Your task to perform on an android device: toggle wifi Image 0: 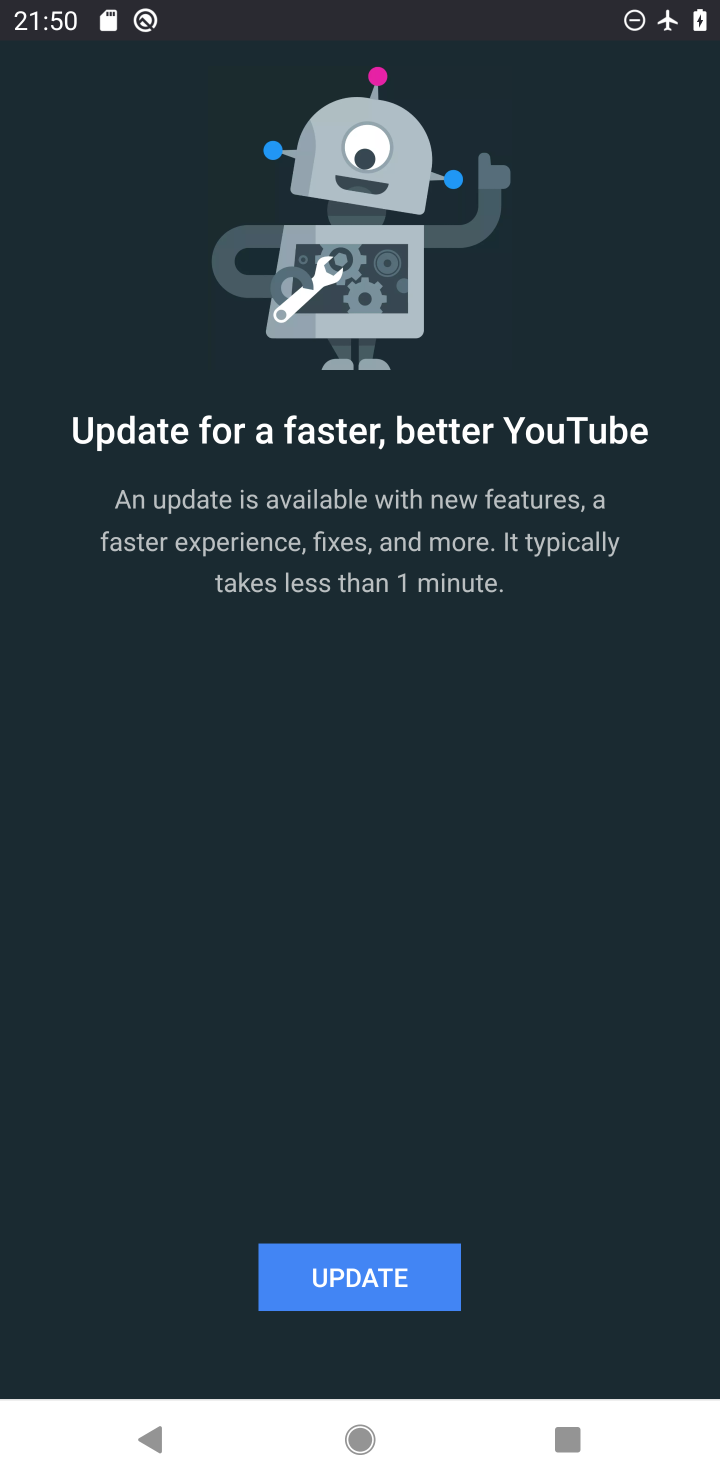
Step 0: press home button
Your task to perform on an android device: toggle wifi Image 1: 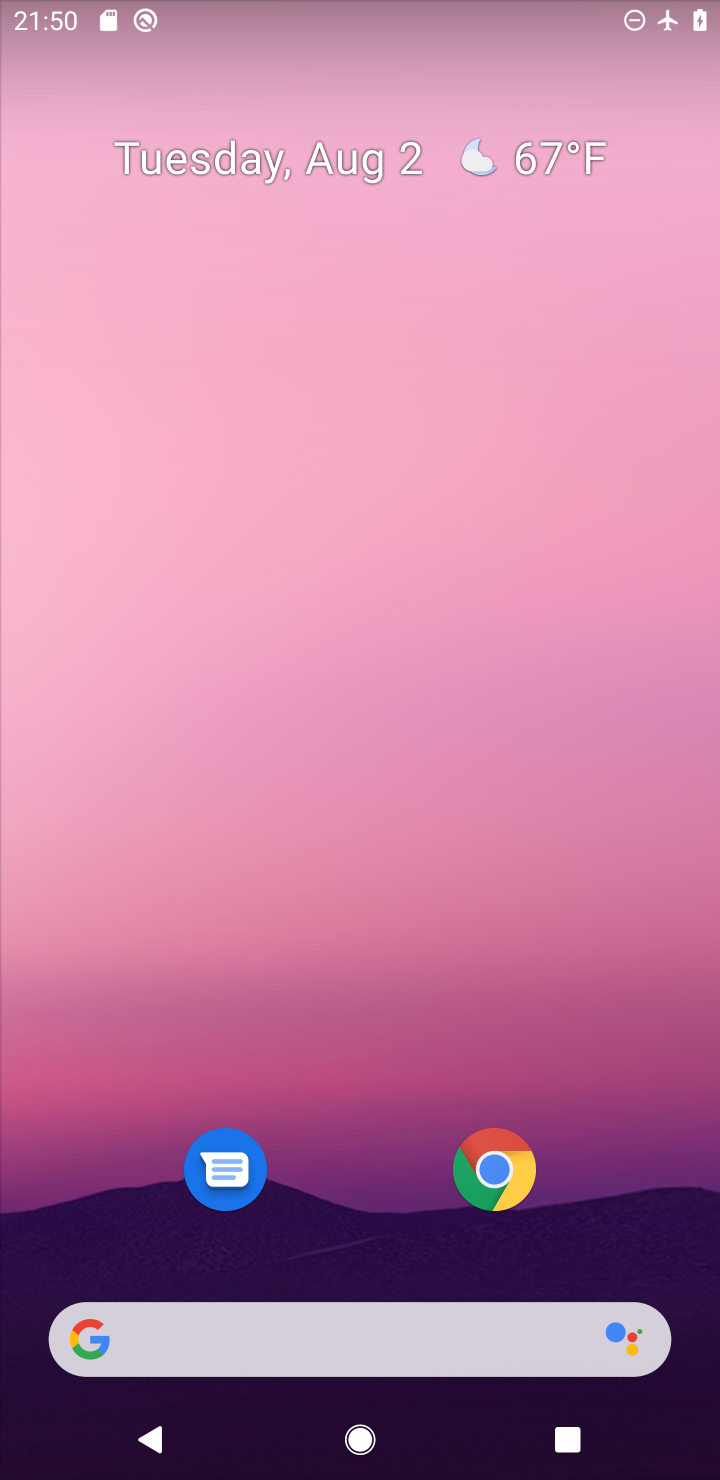
Step 1: drag from (342, 1094) to (361, 77)
Your task to perform on an android device: toggle wifi Image 2: 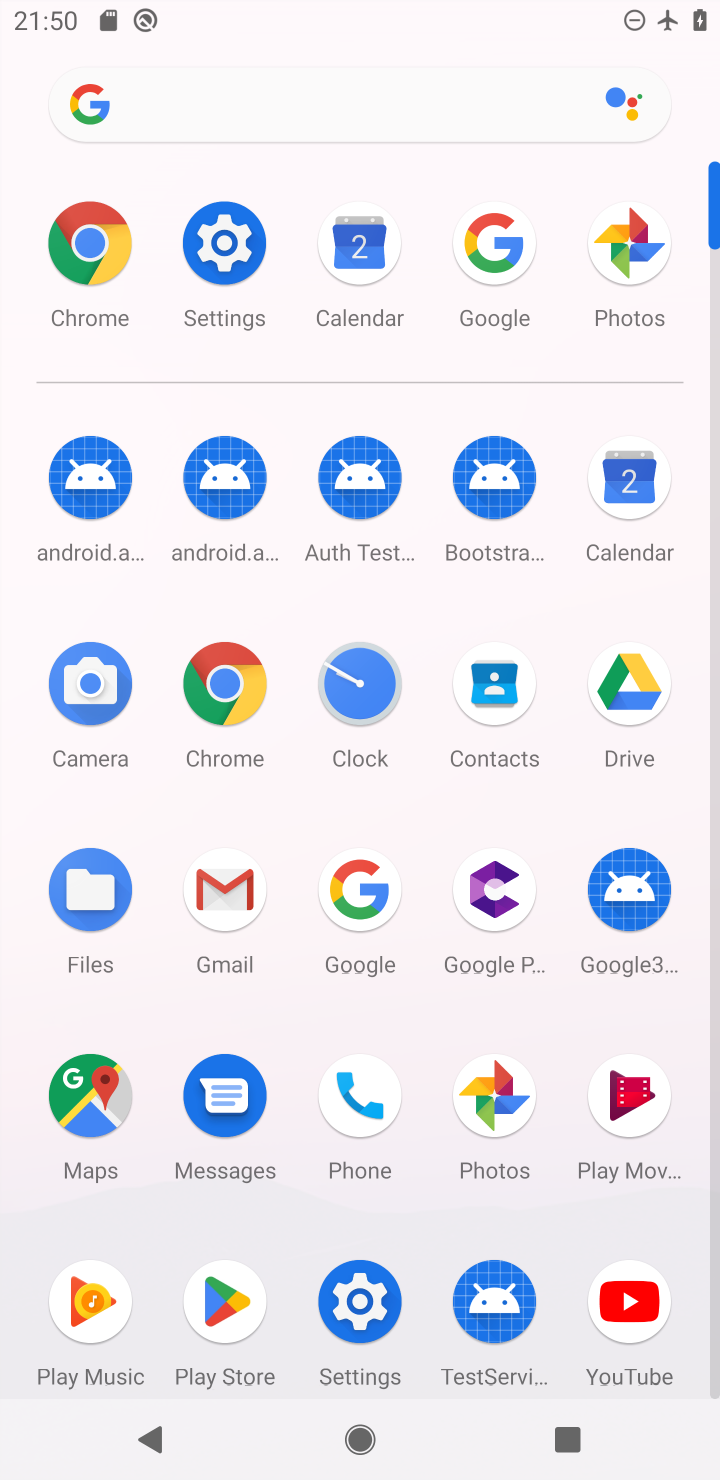
Step 2: click (228, 241)
Your task to perform on an android device: toggle wifi Image 3: 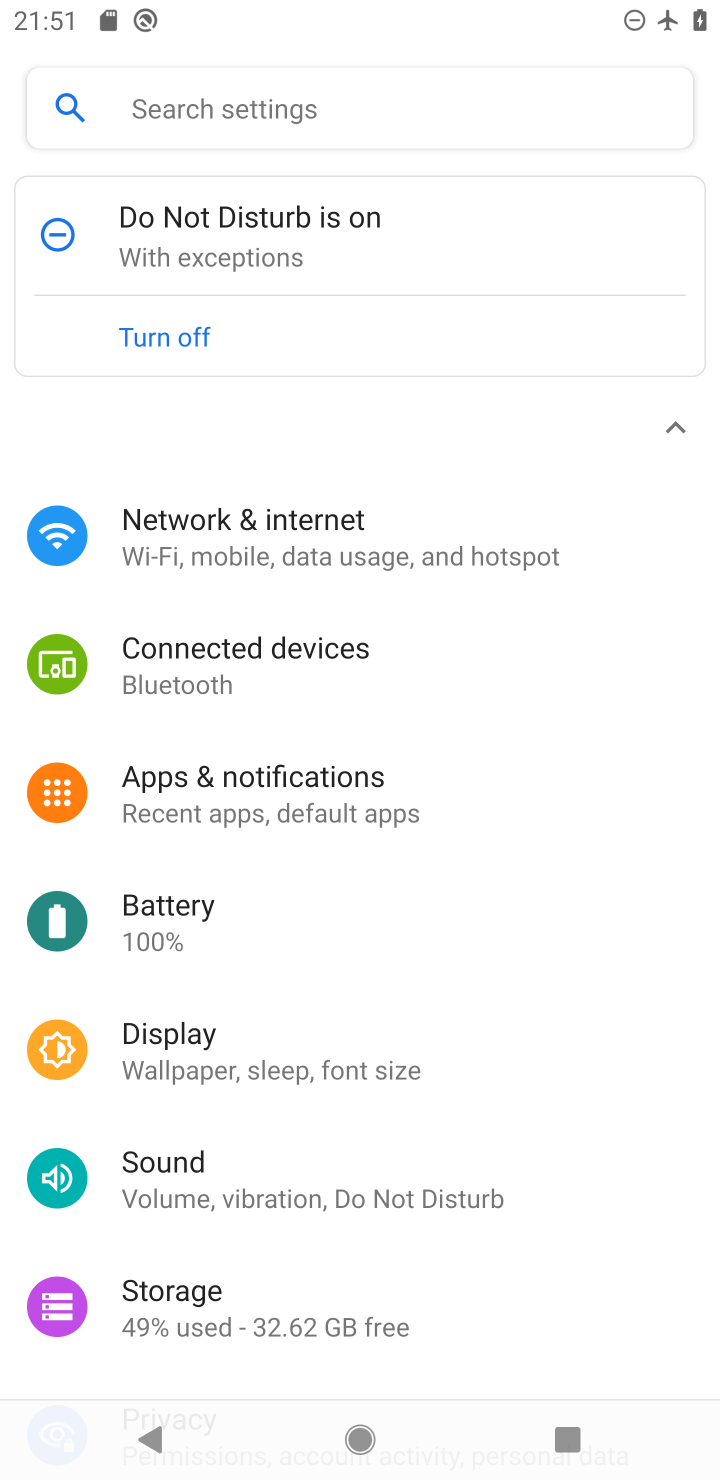
Step 3: click (203, 539)
Your task to perform on an android device: toggle wifi Image 4: 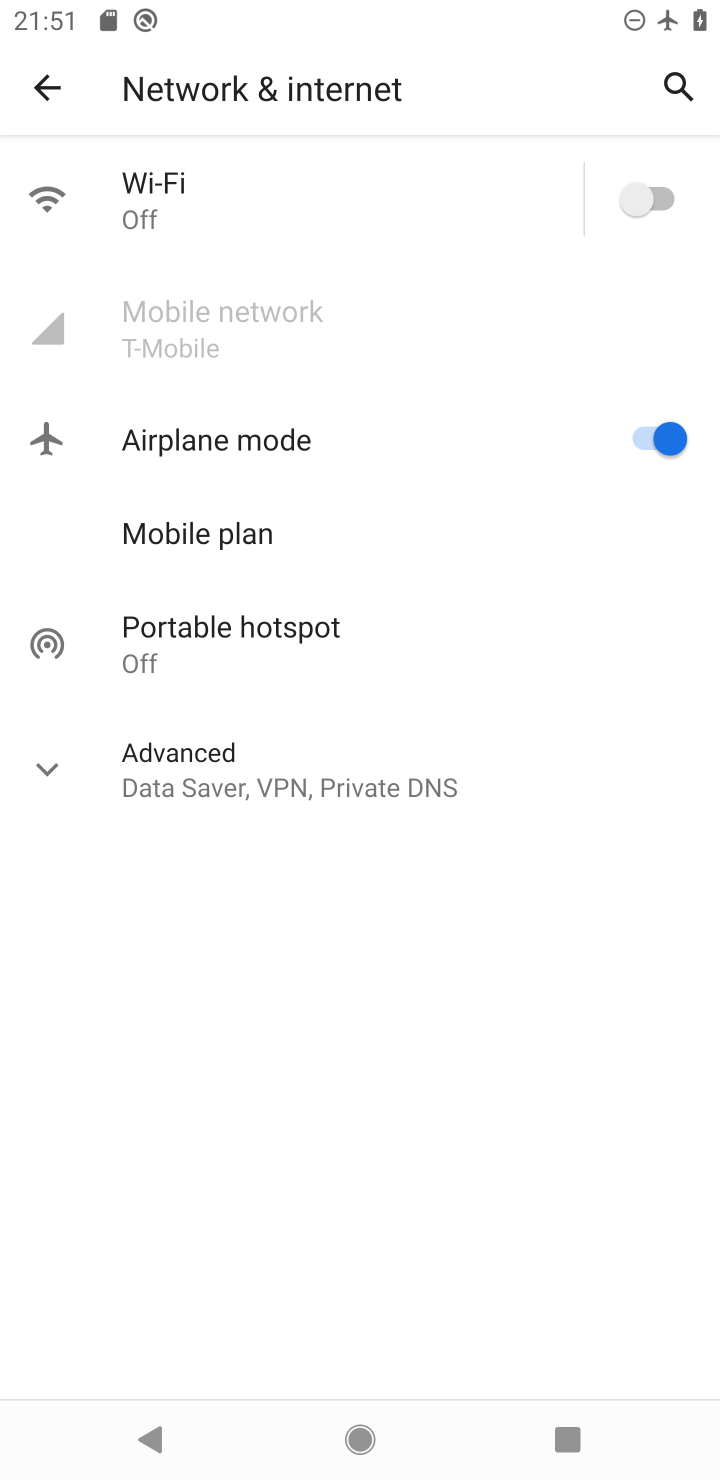
Step 4: click (664, 189)
Your task to perform on an android device: toggle wifi Image 5: 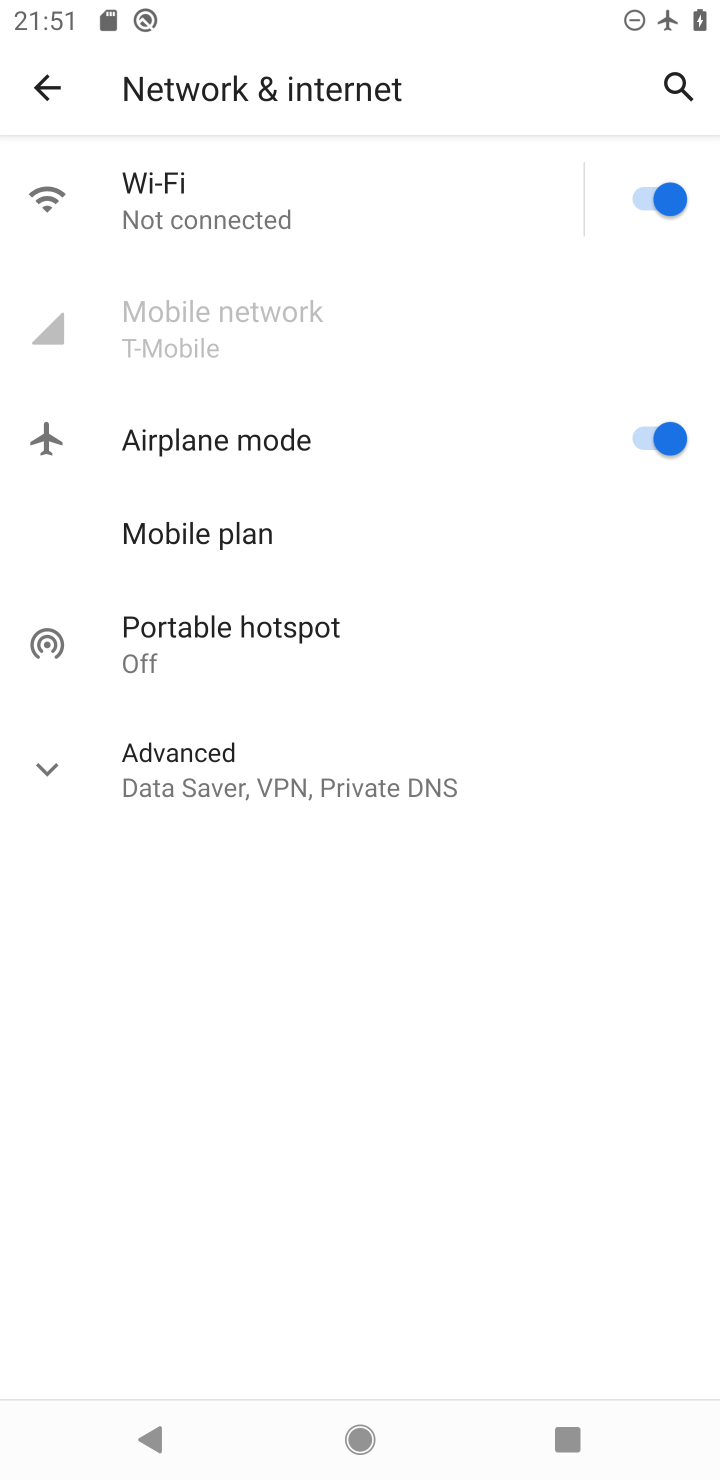
Step 5: task complete